Your task to perform on an android device: Open Maps and search for coffee Image 0: 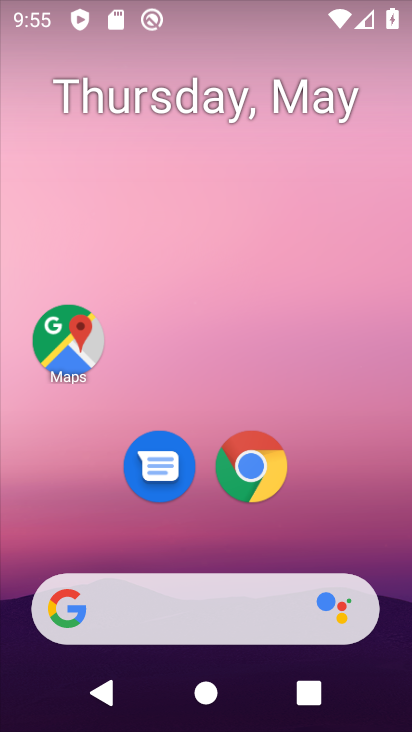
Step 0: click (82, 339)
Your task to perform on an android device: Open Maps and search for coffee Image 1: 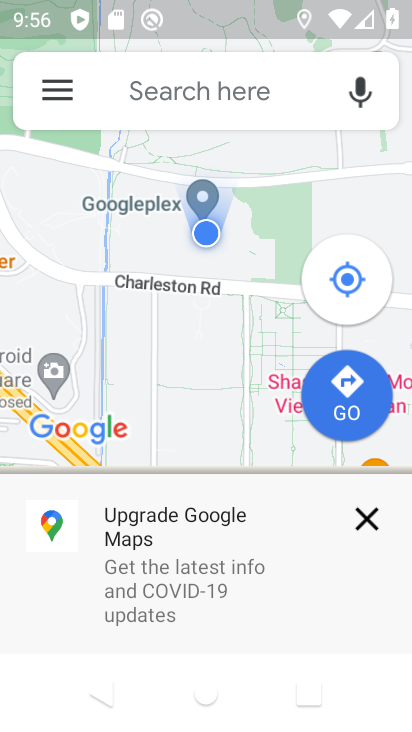
Step 1: click (234, 81)
Your task to perform on an android device: Open Maps and search for coffee Image 2: 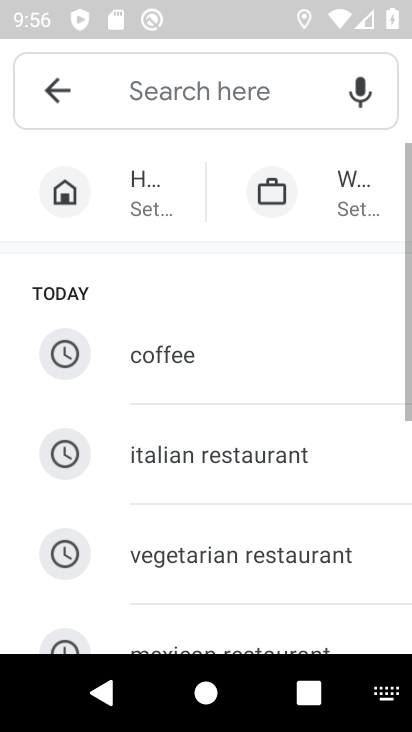
Step 2: click (190, 352)
Your task to perform on an android device: Open Maps and search for coffee Image 3: 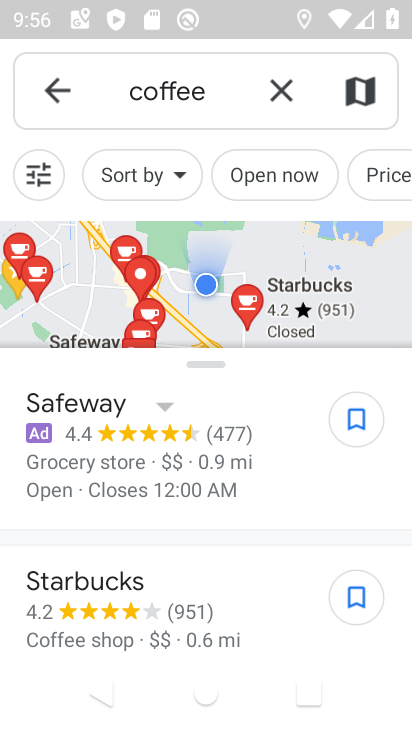
Step 3: task complete